Your task to perform on an android device: Open privacy settings Image 0: 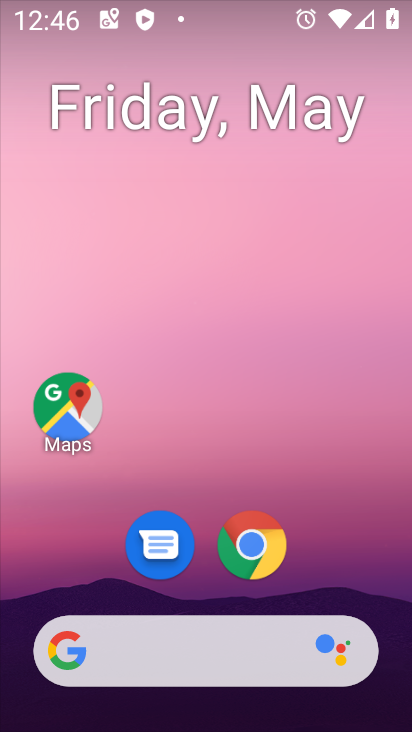
Step 0: drag from (325, 568) to (306, 229)
Your task to perform on an android device: Open privacy settings Image 1: 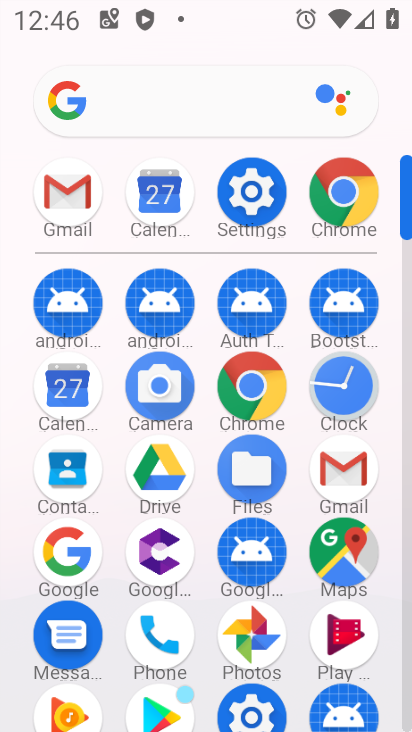
Step 1: click (244, 181)
Your task to perform on an android device: Open privacy settings Image 2: 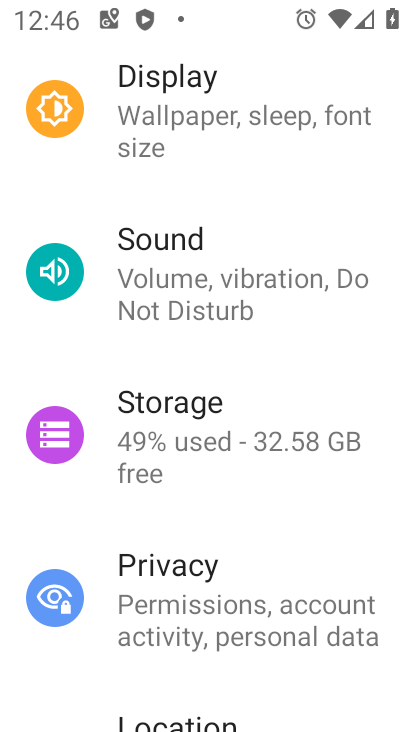
Step 2: click (212, 585)
Your task to perform on an android device: Open privacy settings Image 3: 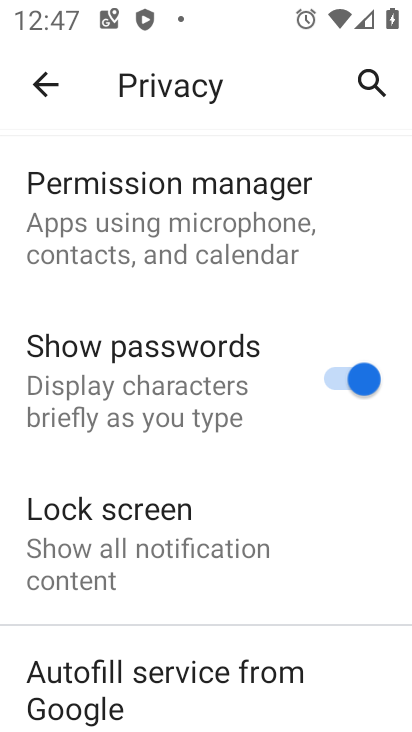
Step 3: task complete